Your task to perform on an android device: snooze an email in the gmail app Image 0: 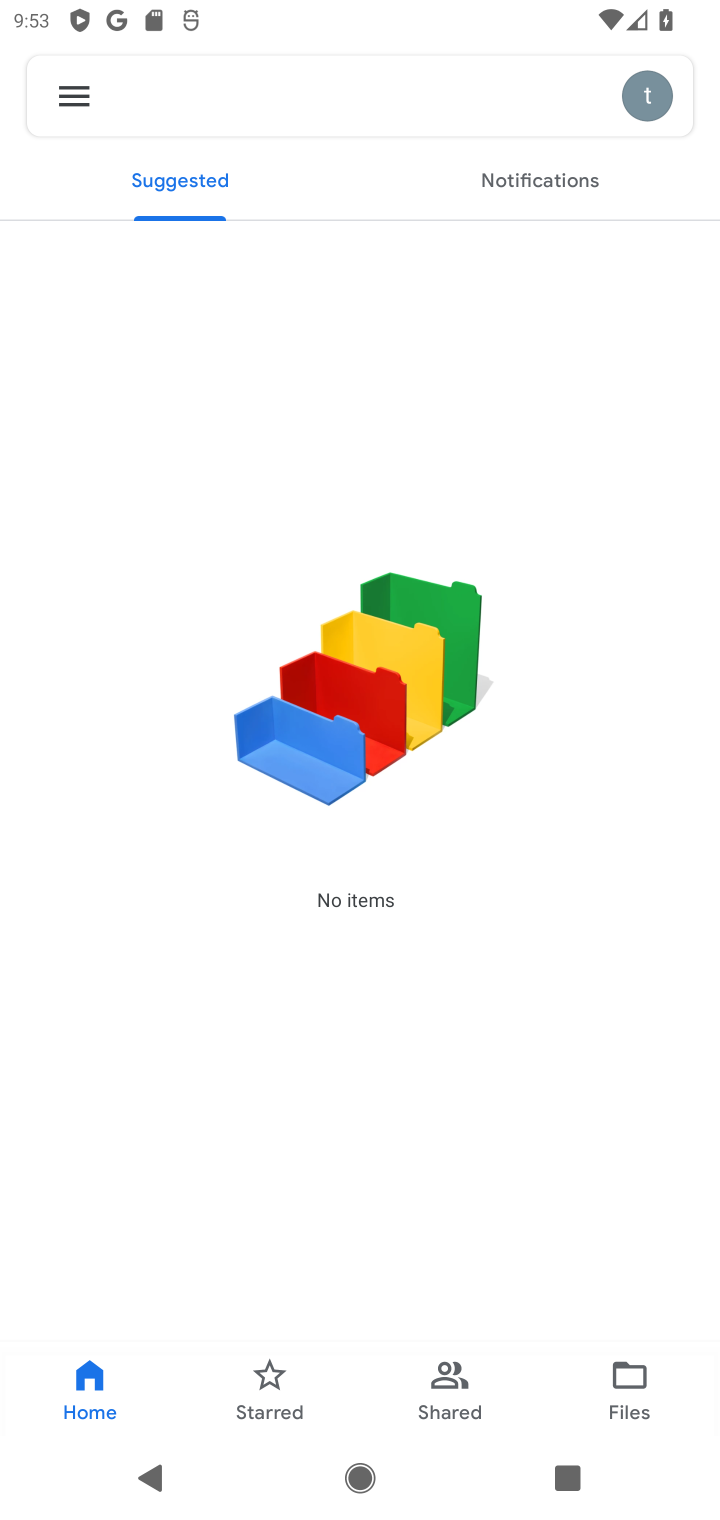
Step 0: press back button
Your task to perform on an android device: snooze an email in the gmail app Image 1: 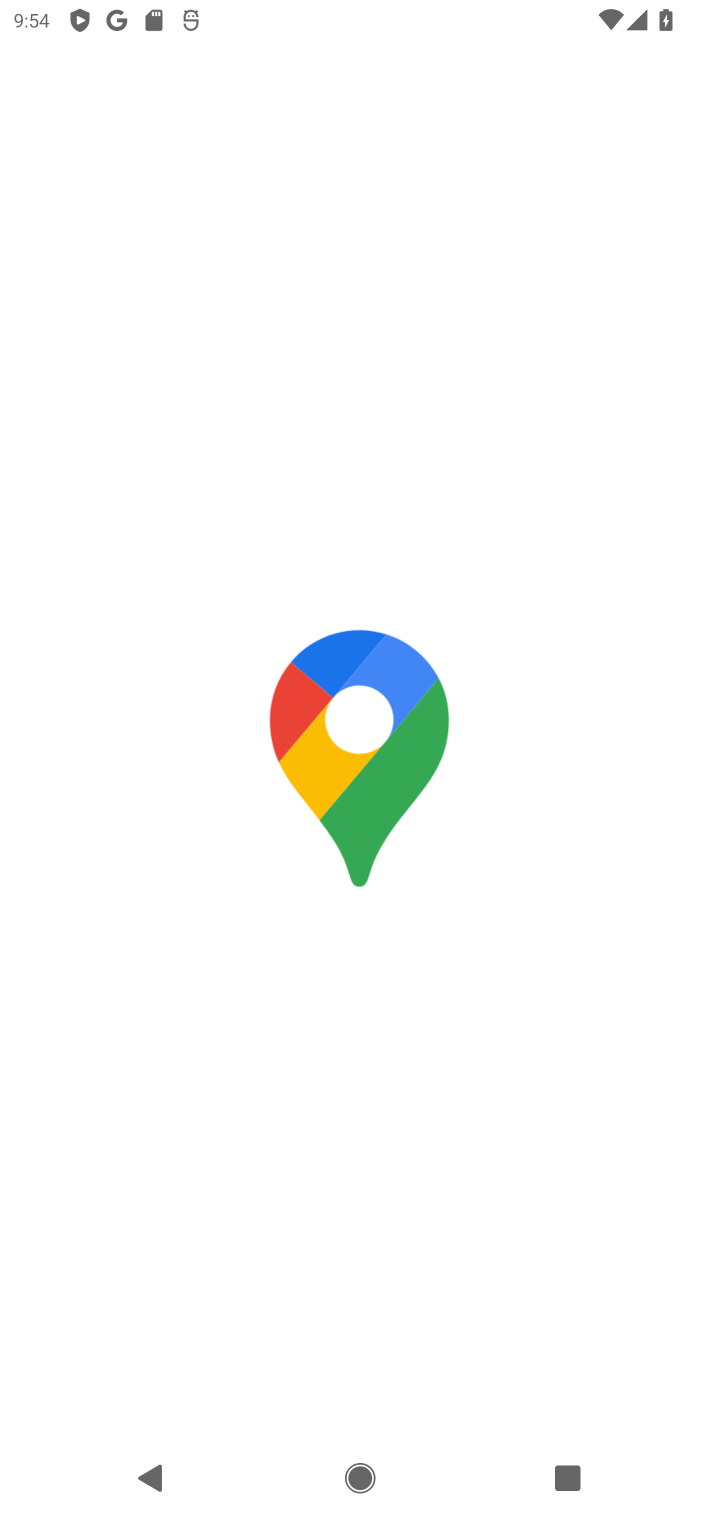
Step 1: press back button
Your task to perform on an android device: snooze an email in the gmail app Image 2: 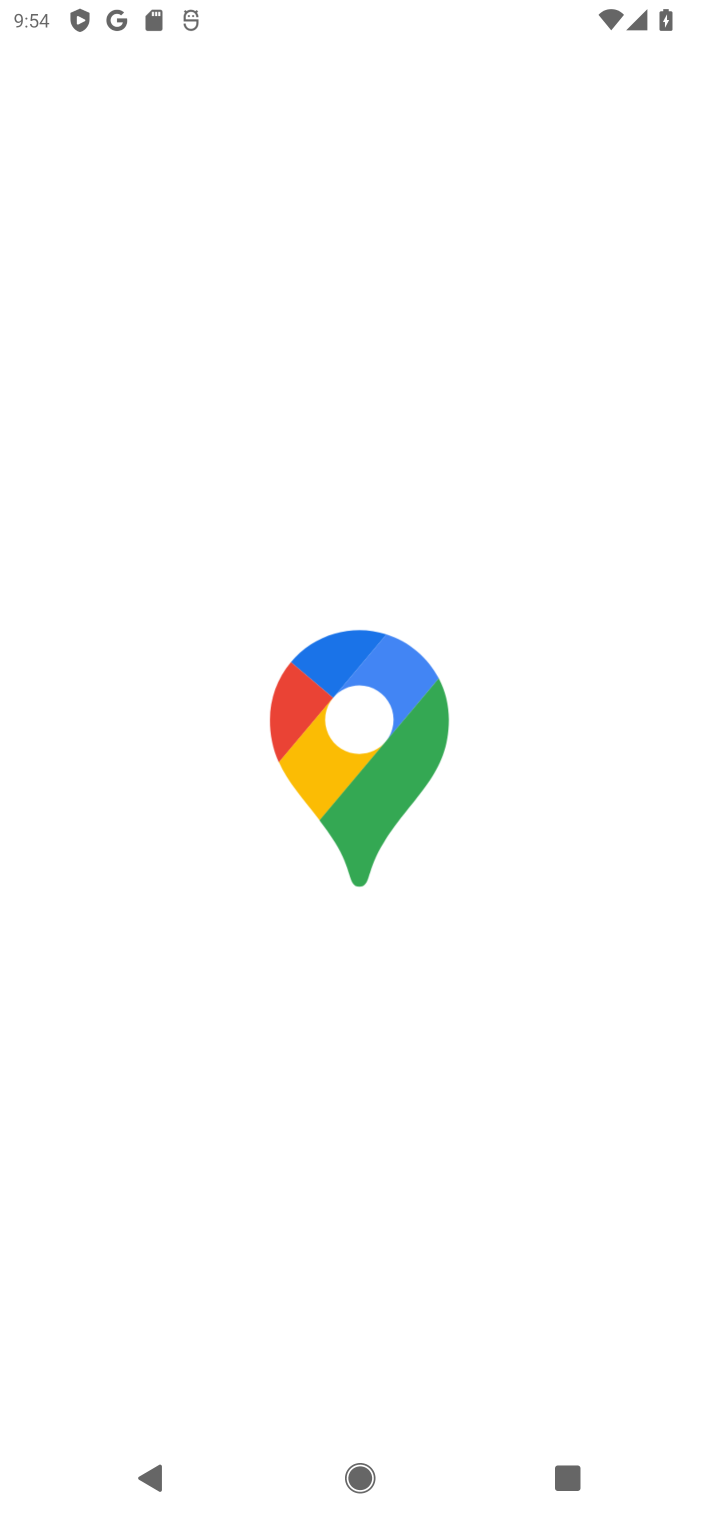
Step 2: press home button
Your task to perform on an android device: snooze an email in the gmail app Image 3: 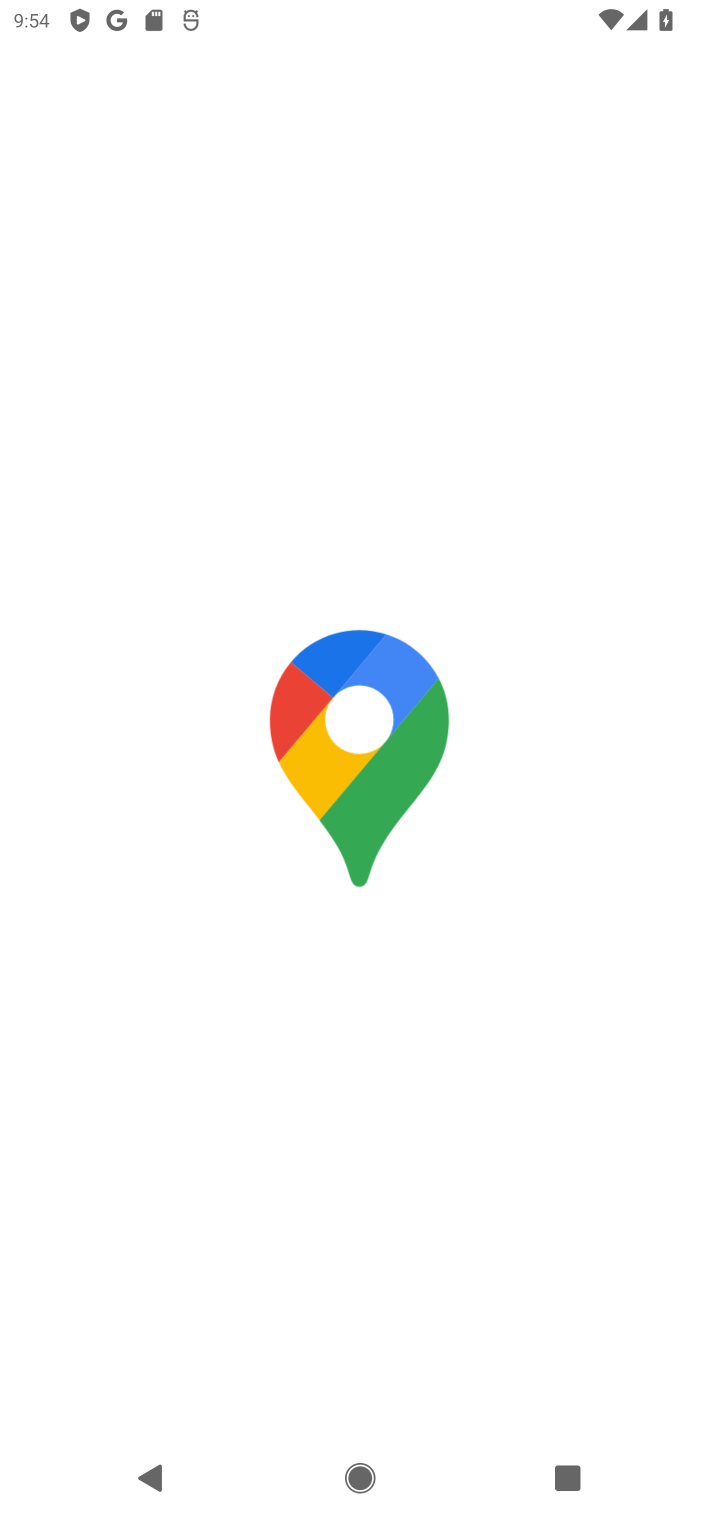
Step 3: press back button
Your task to perform on an android device: snooze an email in the gmail app Image 4: 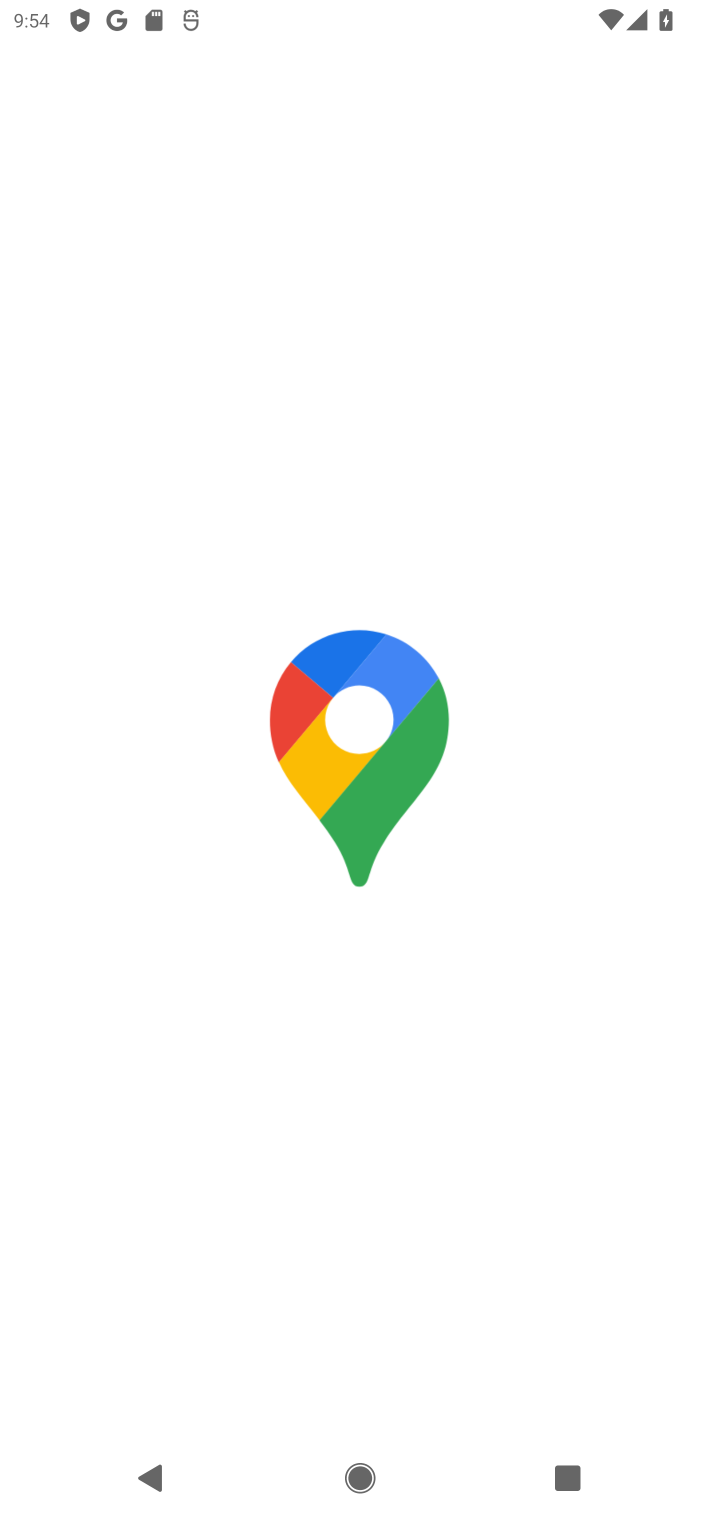
Step 4: press home button
Your task to perform on an android device: snooze an email in the gmail app Image 5: 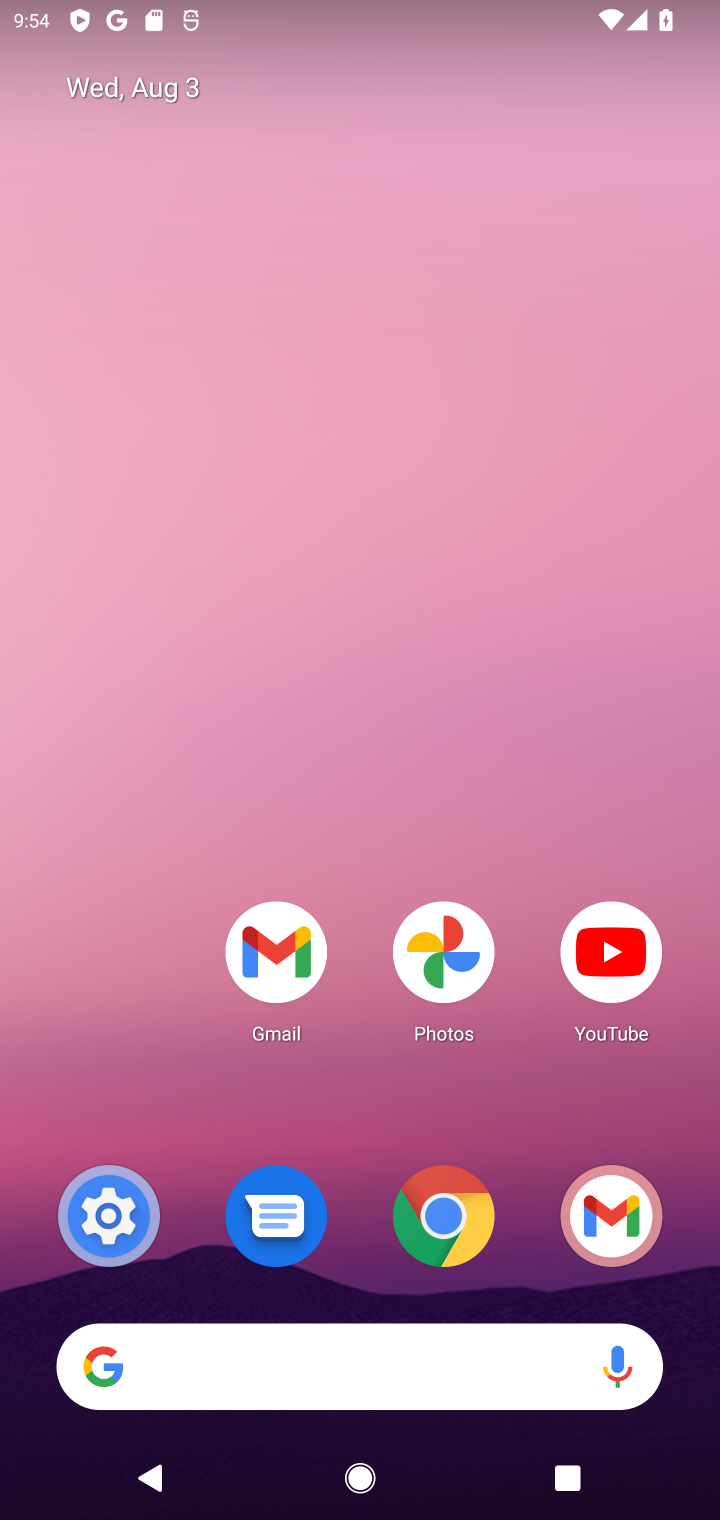
Step 5: click (607, 1232)
Your task to perform on an android device: snooze an email in the gmail app Image 6: 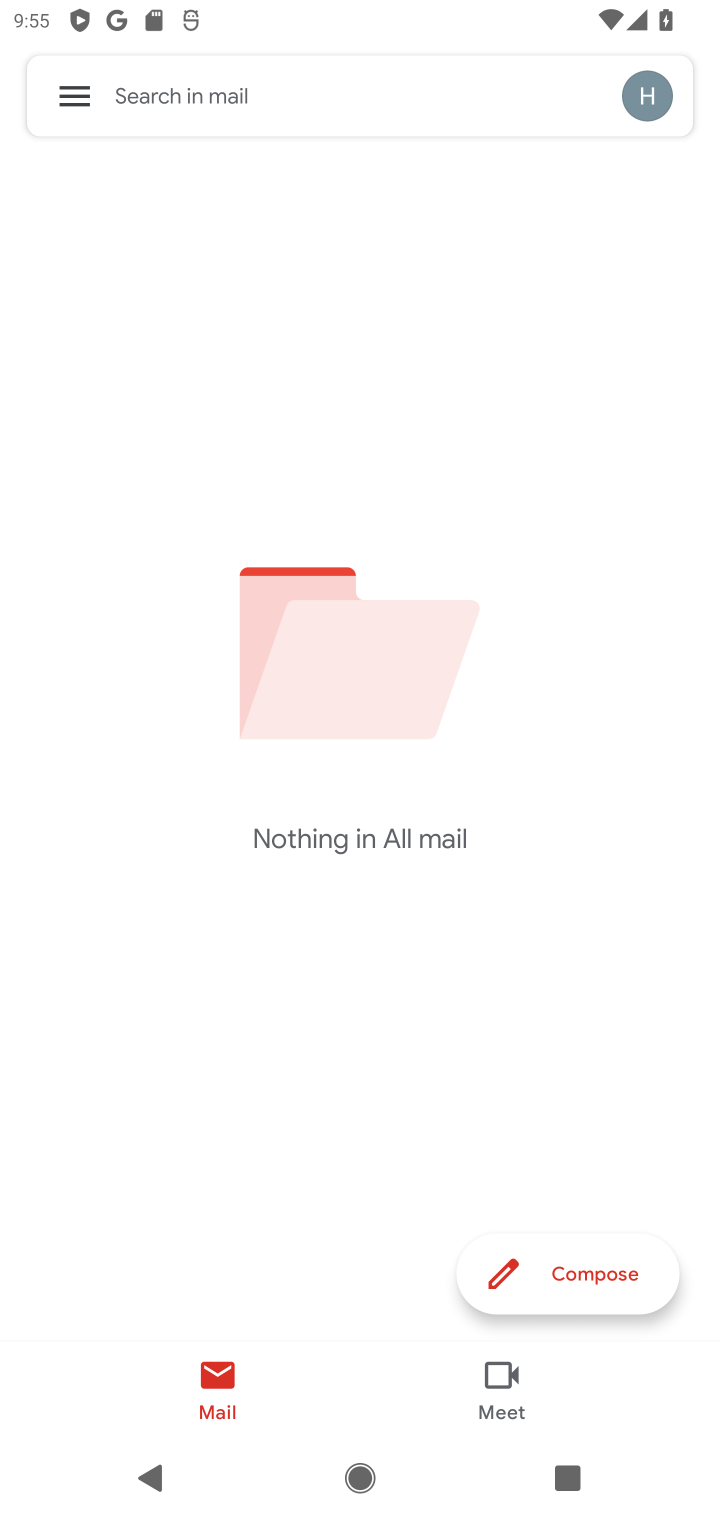
Step 6: task complete